Your task to perform on an android device: Open the calendar app, open the side menu, and click the "Day" option Image 0: 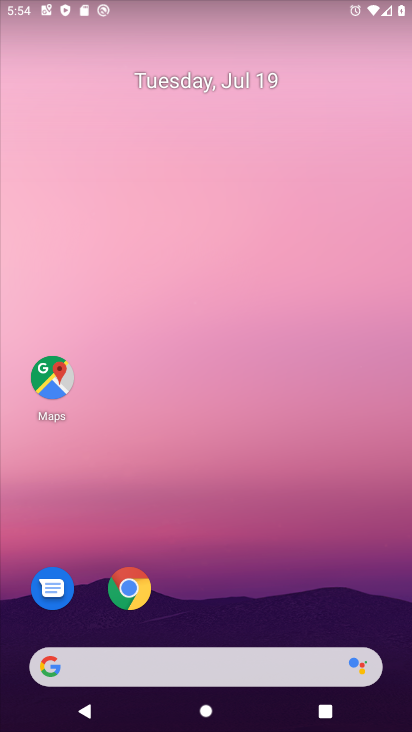
Step 0: click (183, 79)
Your task to perform on an android device: Open the calendar app, open the side menu, and click the "Day" option Image 1: 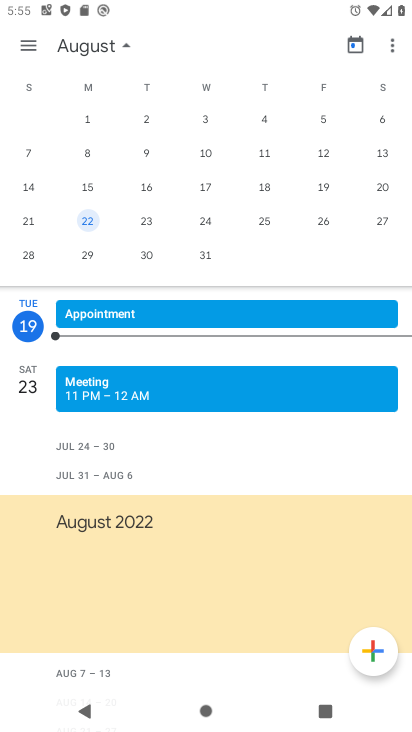
Step 1: click (28, 60)
Your task to perform on an android device: Open the calendar app, open the side menu, and click the "Day" option Image 2: 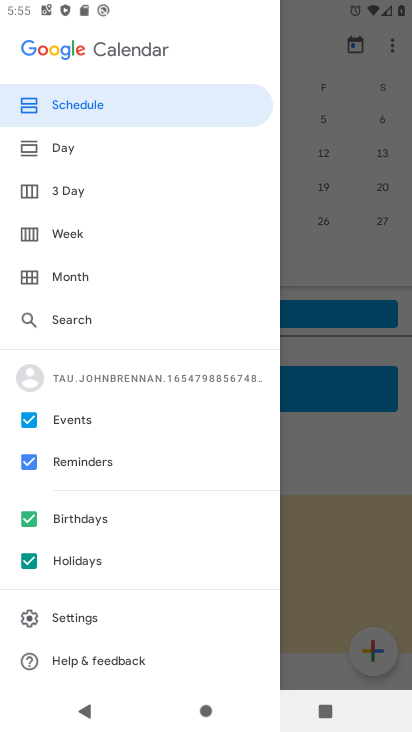
Step 2: click (105, 158)
Your task to perform on an android device: Open the calendar app, open the side menu, and click the "Day" option Image 3: 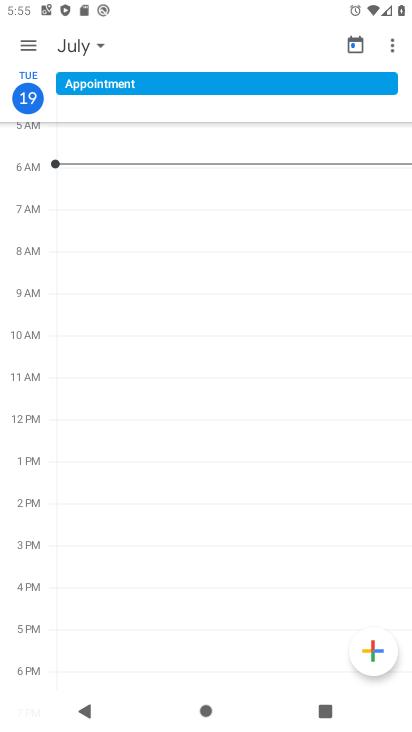
Step 3: click (21, 51)
Your task to perform on an android device: Open the calendar app, open the side menu, and click the "Day" option Image 4: 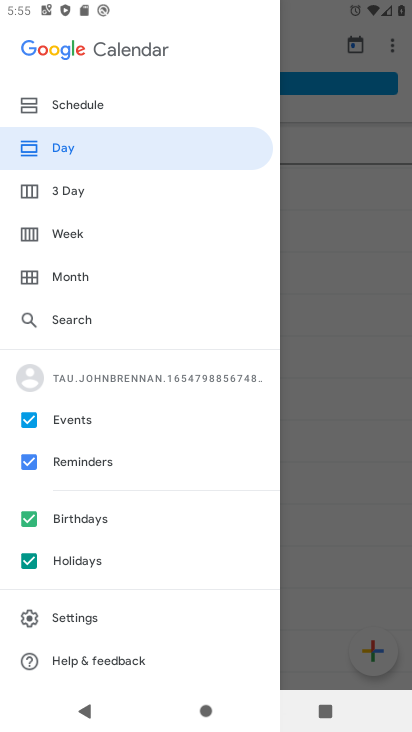
Step 4: task complete